Your task to perform on an android device: Open the web browser Image 0: 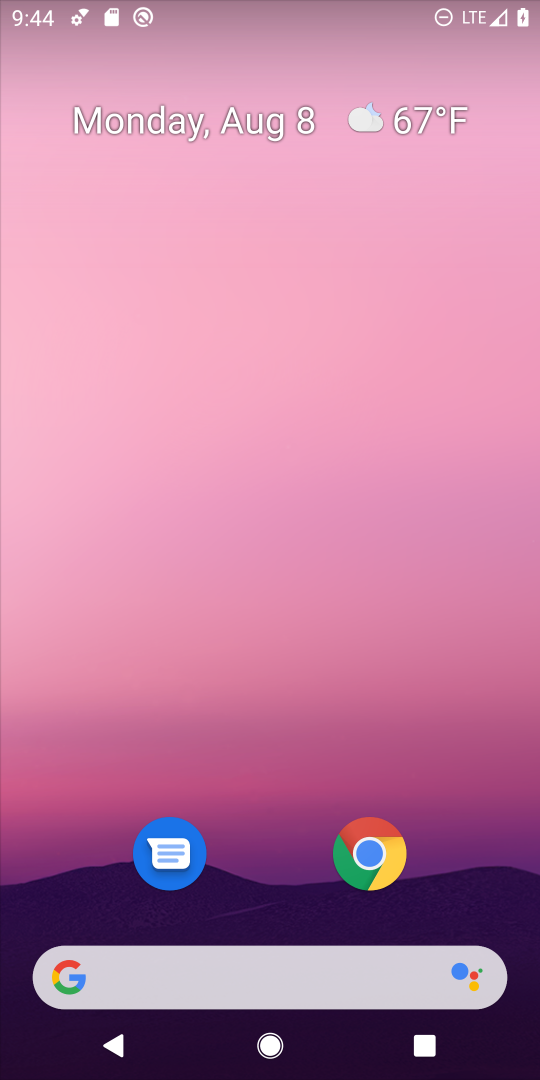
Step 0: click (375, 864)
Your task to perform on an android device: Open the web browser Image 1: 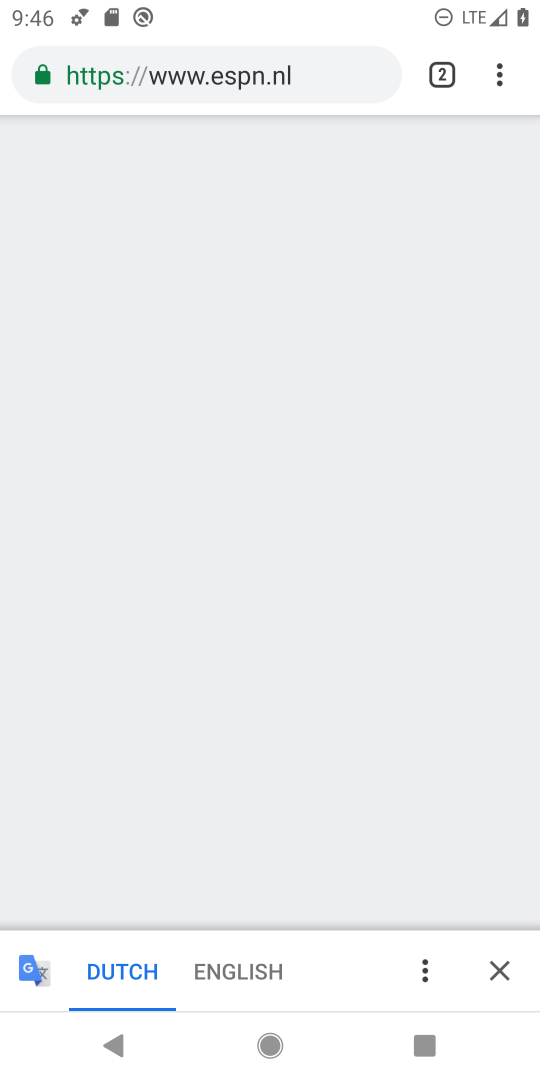
Step 1: task complete